Your task to perform on an android device: turn on airplane mode Image 0: 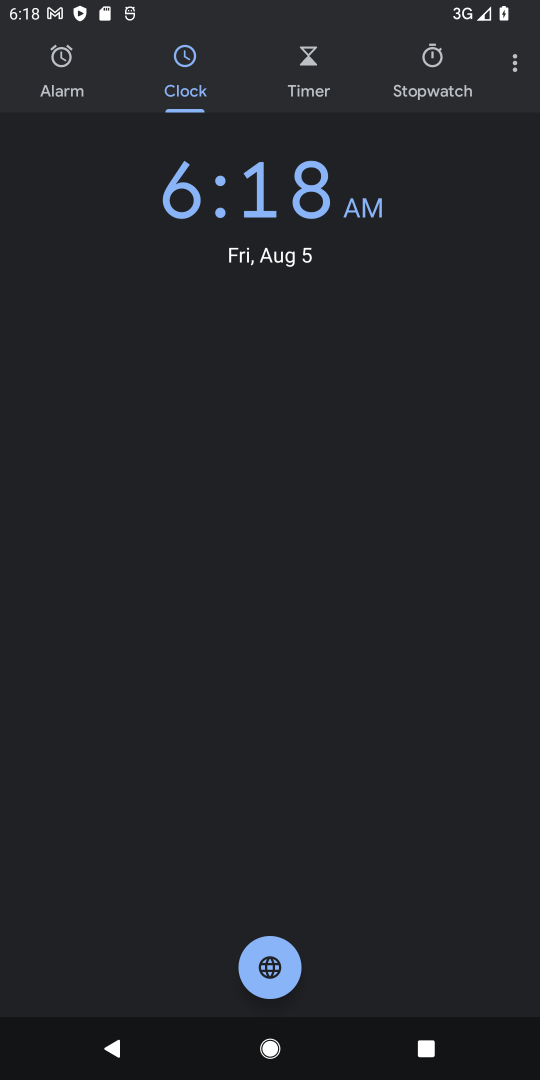
Step 0: press back button
Your task to perform on an android device: turn on airplane mode Image 1: 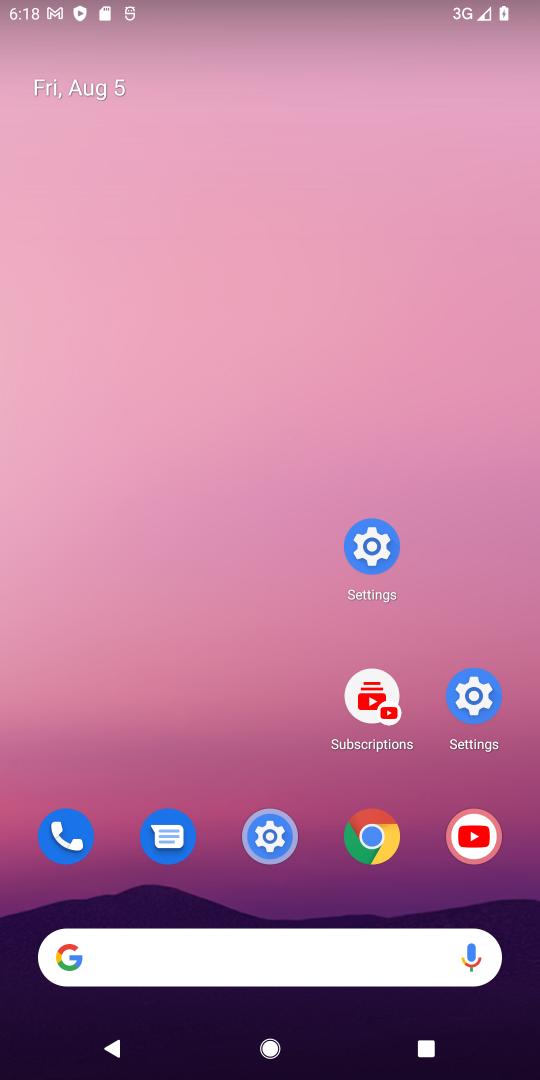
Step 1: click (317, 174)
Your task to perform on an android device: turn on airplane mode Image 2: 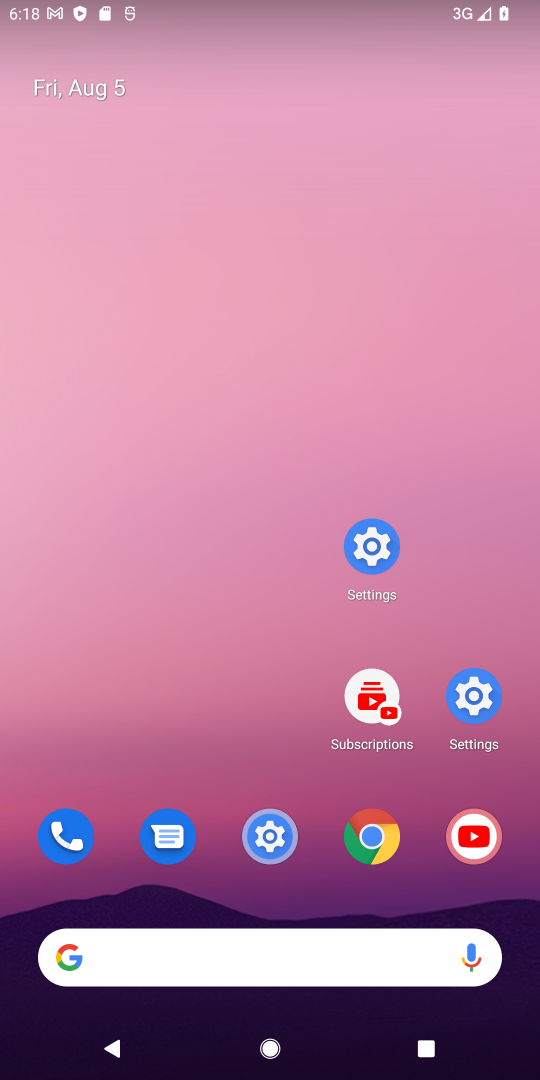
Step 2: drag from (369, 751) to (365, 464)
Your task to perform on an android device: turn on airplane mode Image 3: 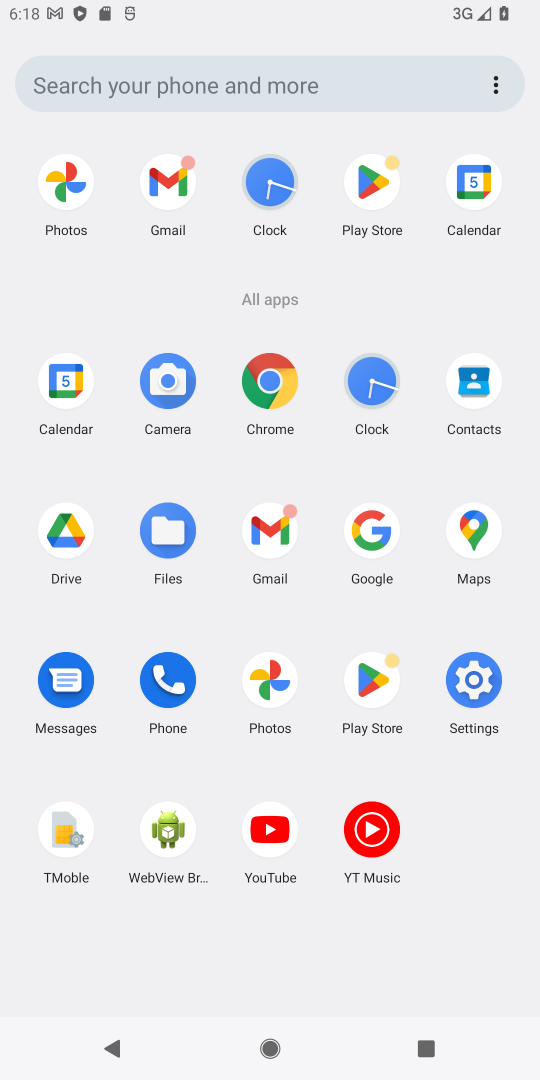
Step 3: click (476, 679)
Your task to perform on an android device: turn on airplane mode Image 4: 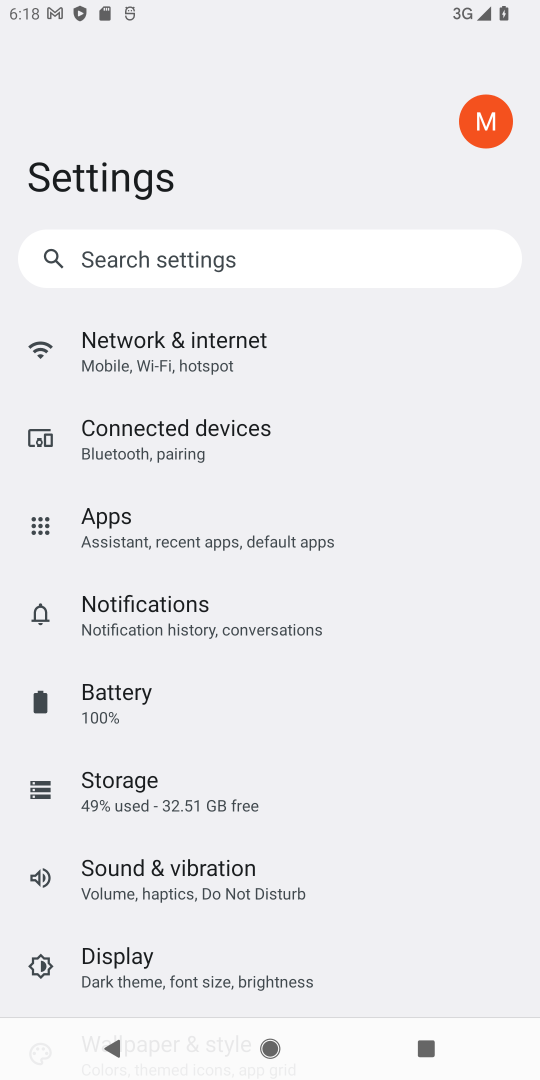
Step 4: click (150, 359)
Your task to perform on an android device: turn on airplane mode Image 5: 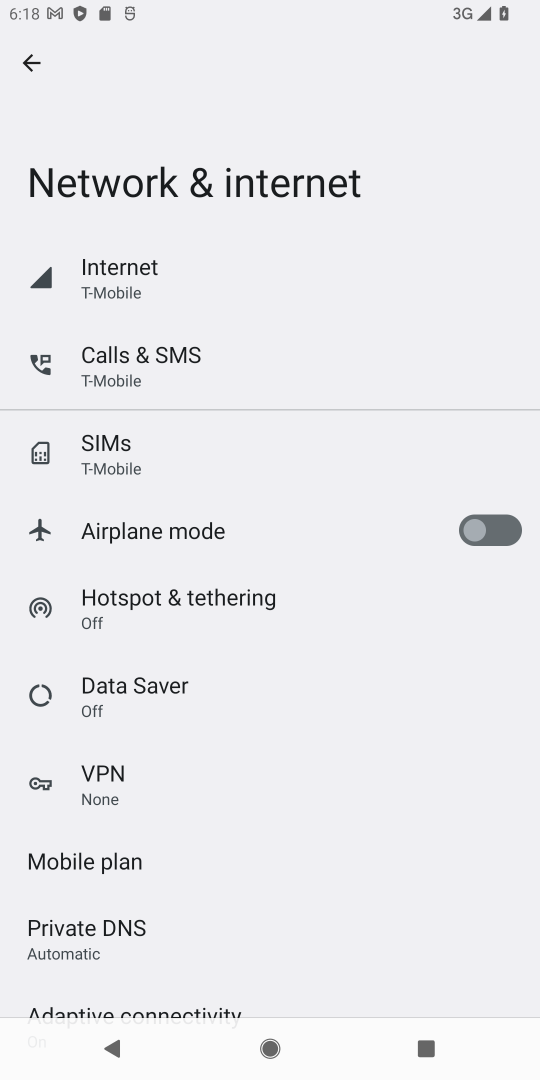
Step 5: click (481, 517)
Your task to perform on an android device: turn on airplane mode Image 6: 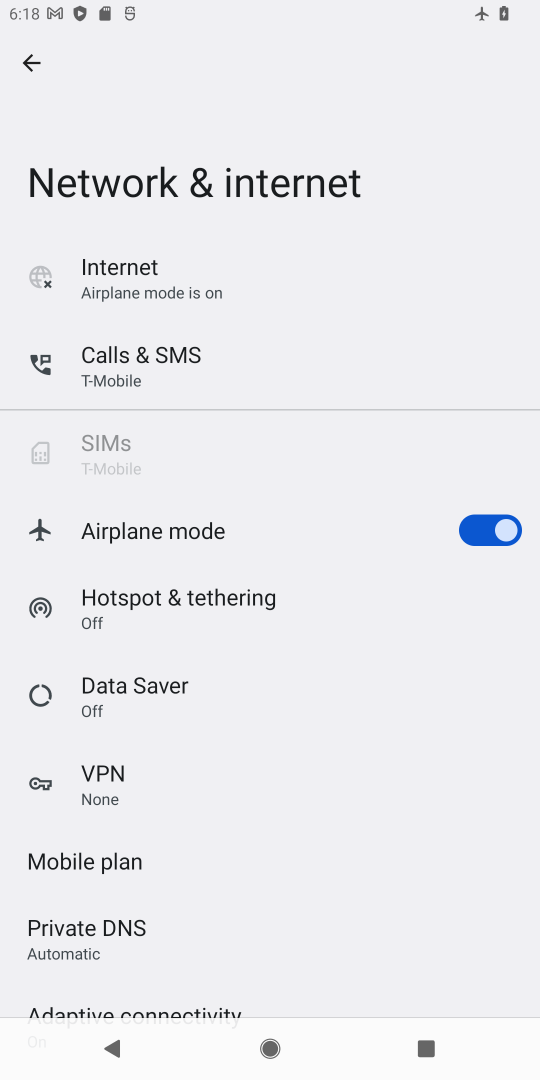
Step 6: task complete